Your task to perform on an android device: Show me productivity apps on the Play Store Image 0: 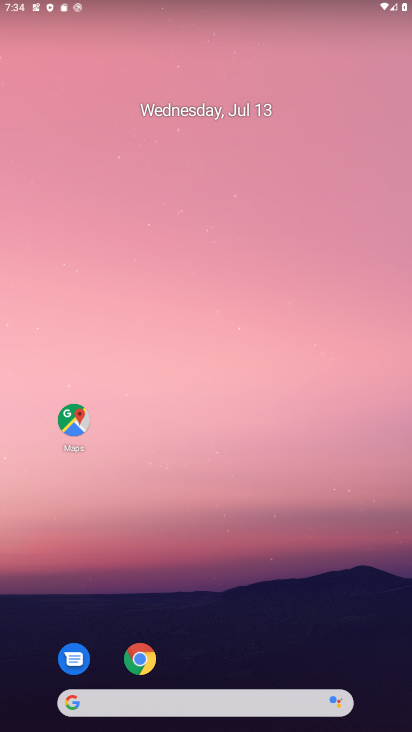
Step 0: click (287, 73)
Your task to perform on an android device: Show me productivity apps on the Play Store Image 1: 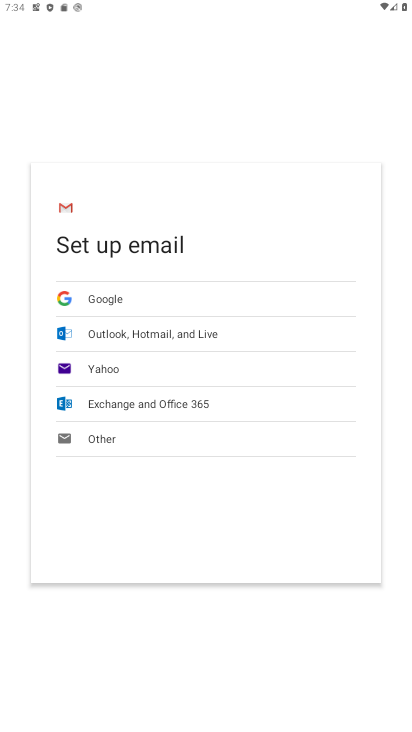
Step 1: press home button
Your task to perform on an android device: Show me productivity apps on the Play Store Image 2: 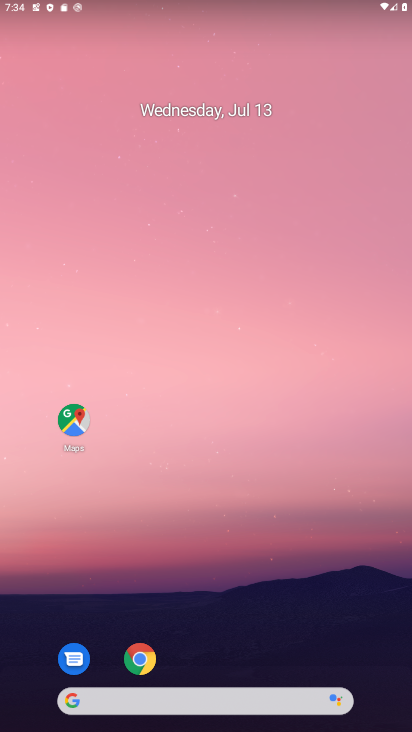
Step 2: drag from (224, 674) to (269, 27)
Your task to perform on an android device: Show me productivity apps on the Play Store Image 3: 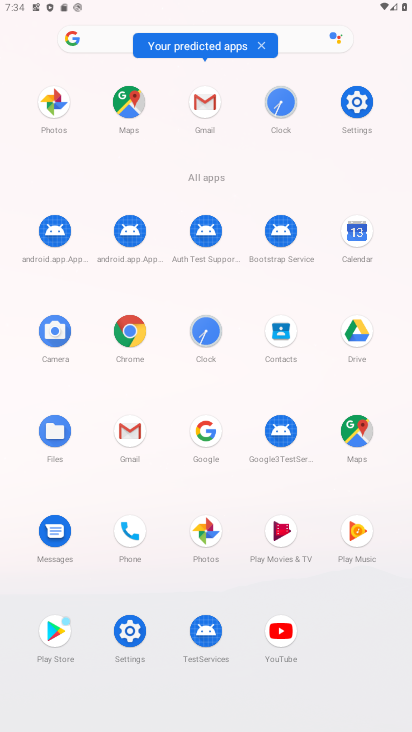
Step 3: click (55, 636)
Your task to perform on an android device: Show me productivity apps on the Play Store Image 4: 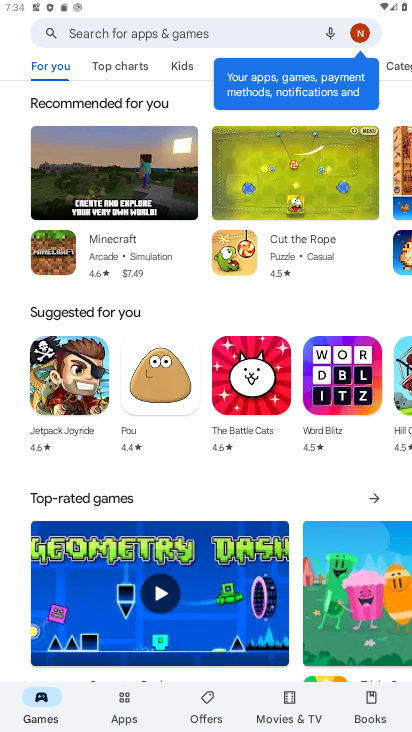
Step 4: click (121, 704)
Your task to perform on an android device: Show me productivity apps on the Play Store Image 5: 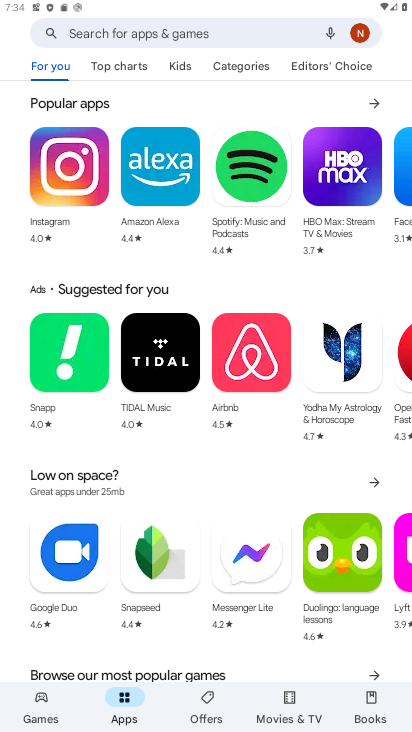
Step 5: click (248, 59)
Your task to perform on an android device: Show me productivity apps on the Play Store Image 6: 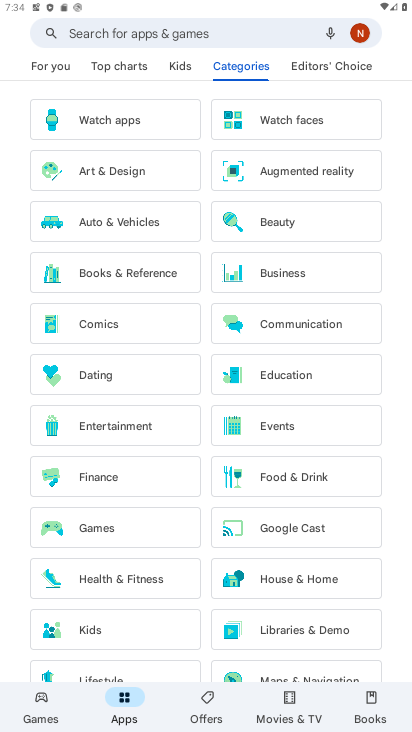
Step 6: drag from (272, 580) to (279, 135)
Your task to perform on an android device: Show me productivity apps on the Play Store Image 7: 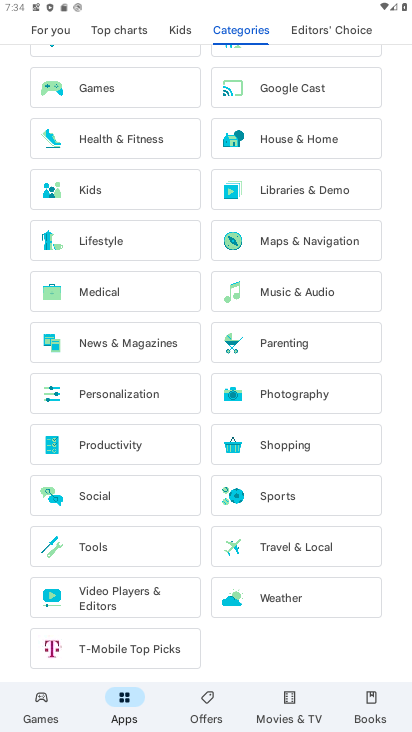
Step 7: click (152, 442)
Your task to perform on an android device: Show me productivity apps on the Play Store Image 8: 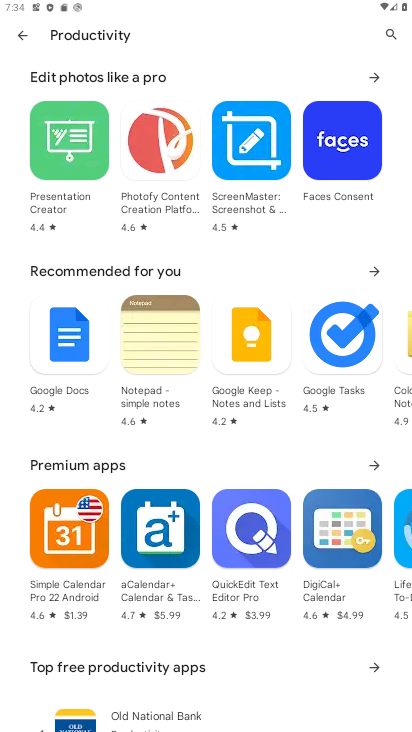
Step 8: task complete